Your task to perform on an android device: turn off location history Image 0: 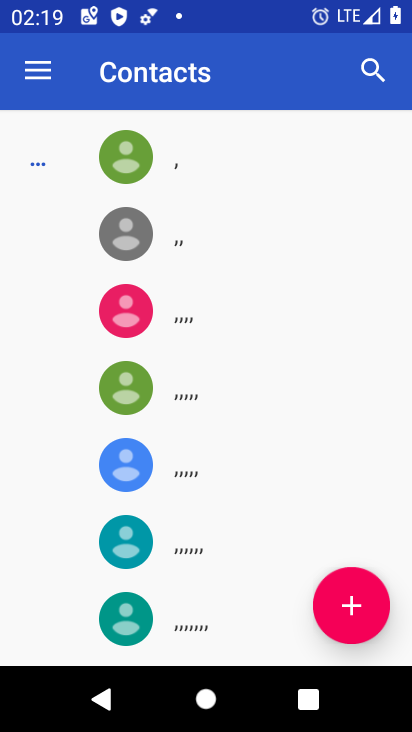
Step 0: press home button
Your task to perform on an android device: turn off location history Image 1: 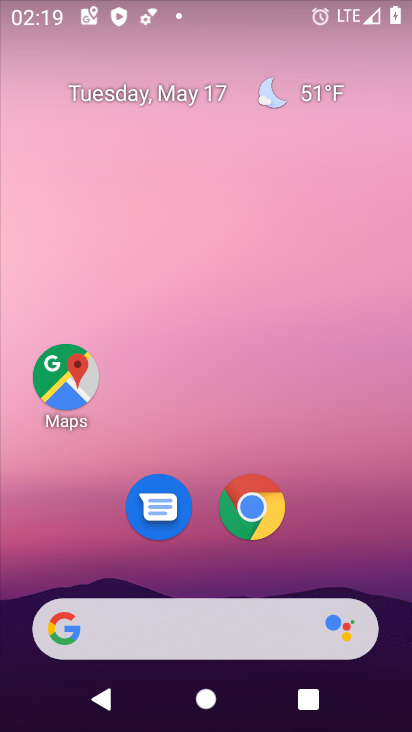
Step 1: drag from (300, 567) to (336, 1)
Your task to perform on an android device: turn off location history Image 2: 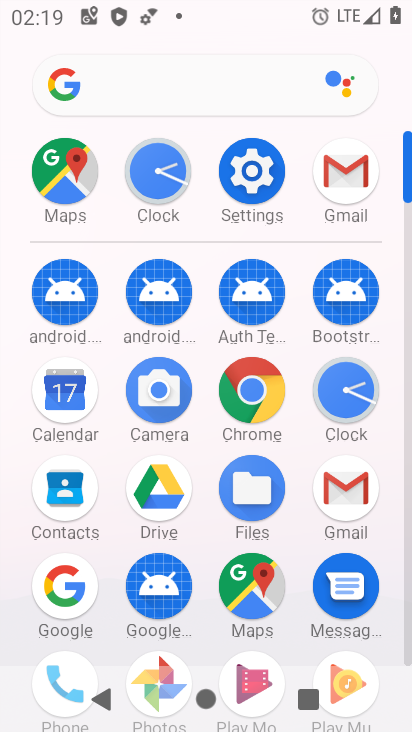
Step 2: click (269, 167)
Your task to perform on an android device: turn off location history Image 3: 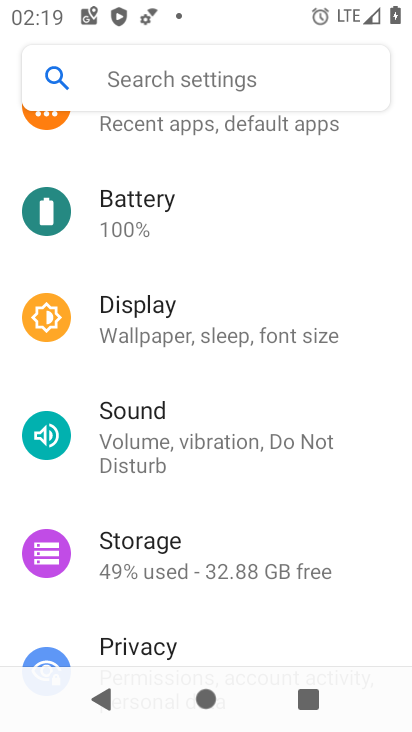
Step 3: drag from (155, 290) to (172, 182)
Your task to perform on an android device: turn off location history Image 4: 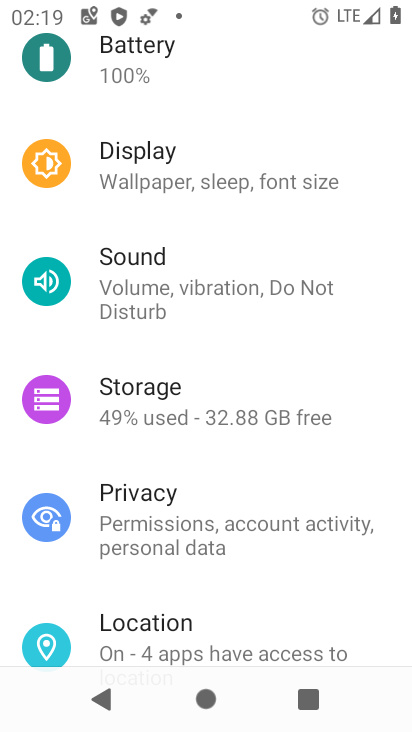
Step 4: drag from (116, 482) to (141, 274)
Your task to perform on an android device: turn off location history Image 5: 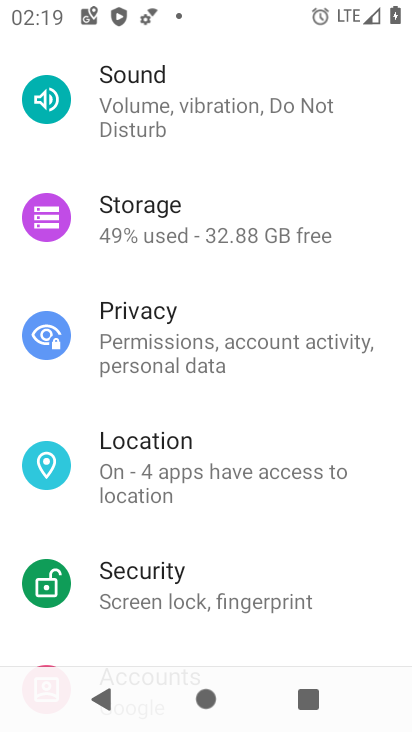
Step 5: click (184, 480)
Your task to perform on an android device: turn off location history Image 6: 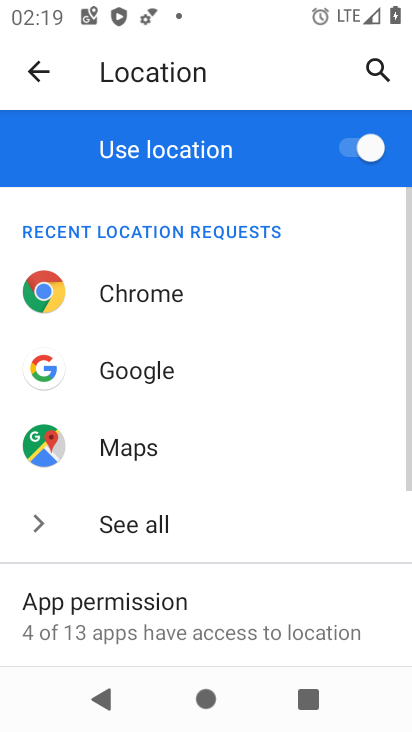
Step 6: drag from (200, 584) to (231, 272)
Your task to perform on an android device: turn off location history Image 7: 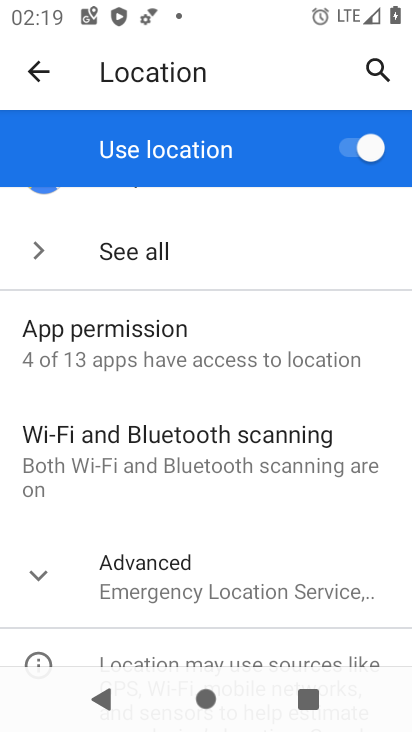
Step 7: click (181, 573)
Your task to perform on an android device: turn off location history Image 8: 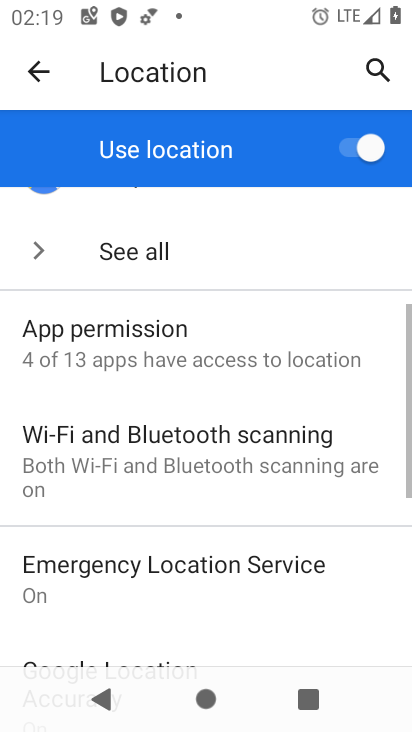
Step 8: drag from (171, 578) to (178, 332)
Your task to perform on an android device: turn off location history Image 9: 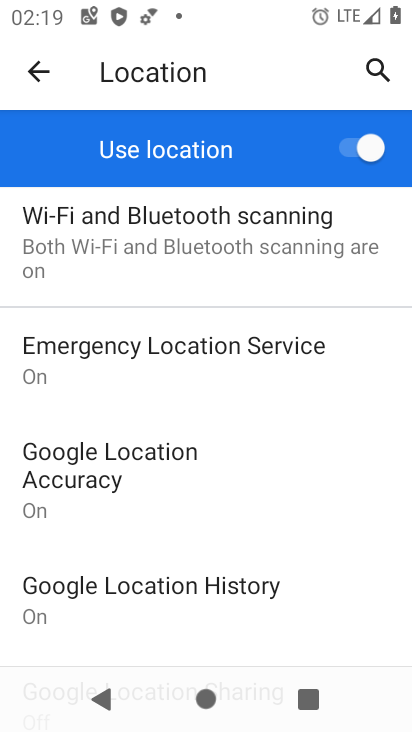
Step 9: click (157, 580)
Your task to perform on an android device: turn off location history Image 10: 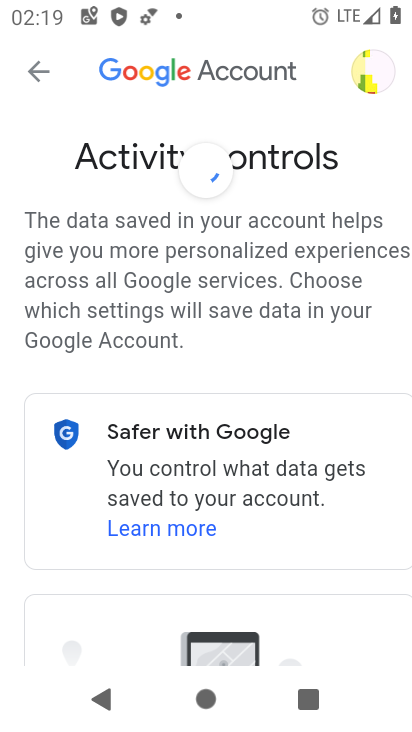
Step 10: task complete